Your task to perform on an android device: Go to network settings Image 0: 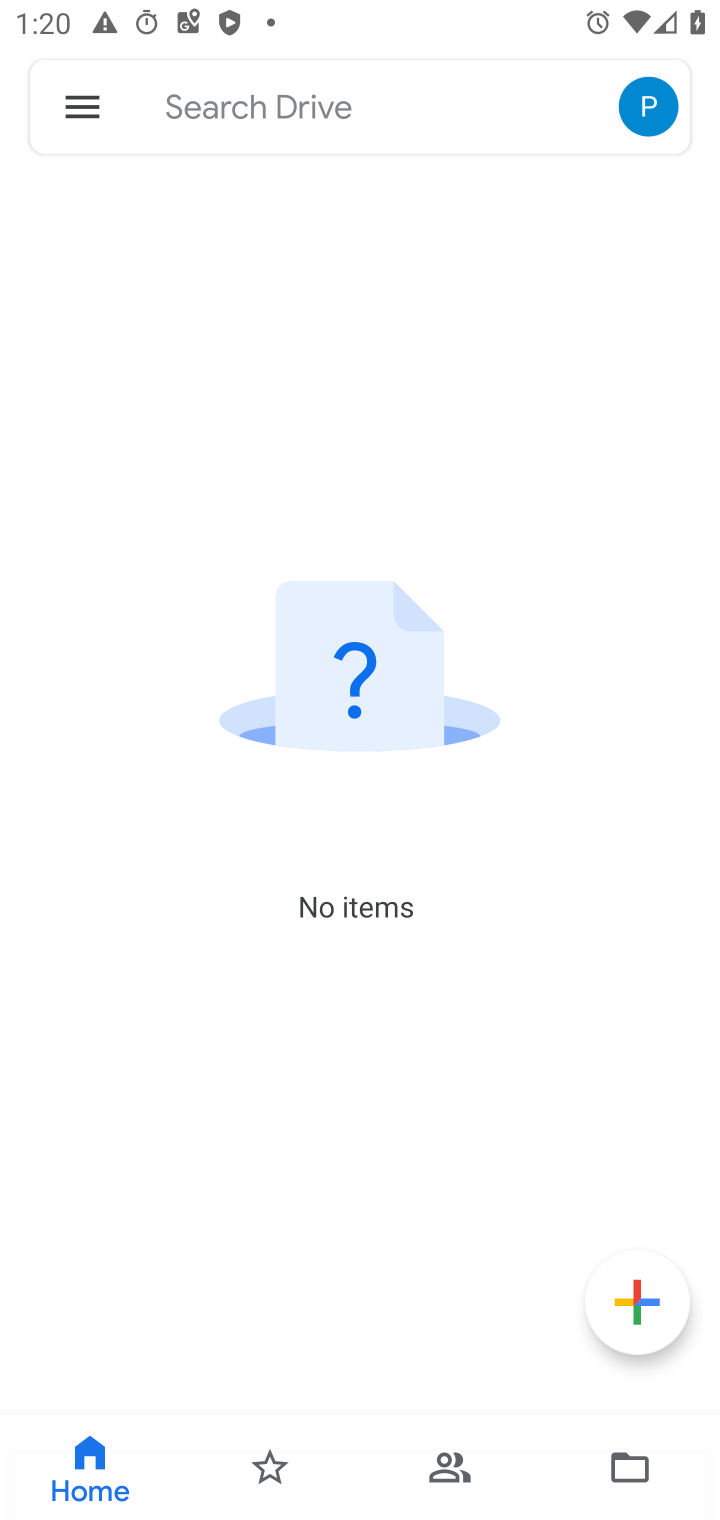
Step 0: press home button
Your task to perform on an android device: Go to network settings Image 1: 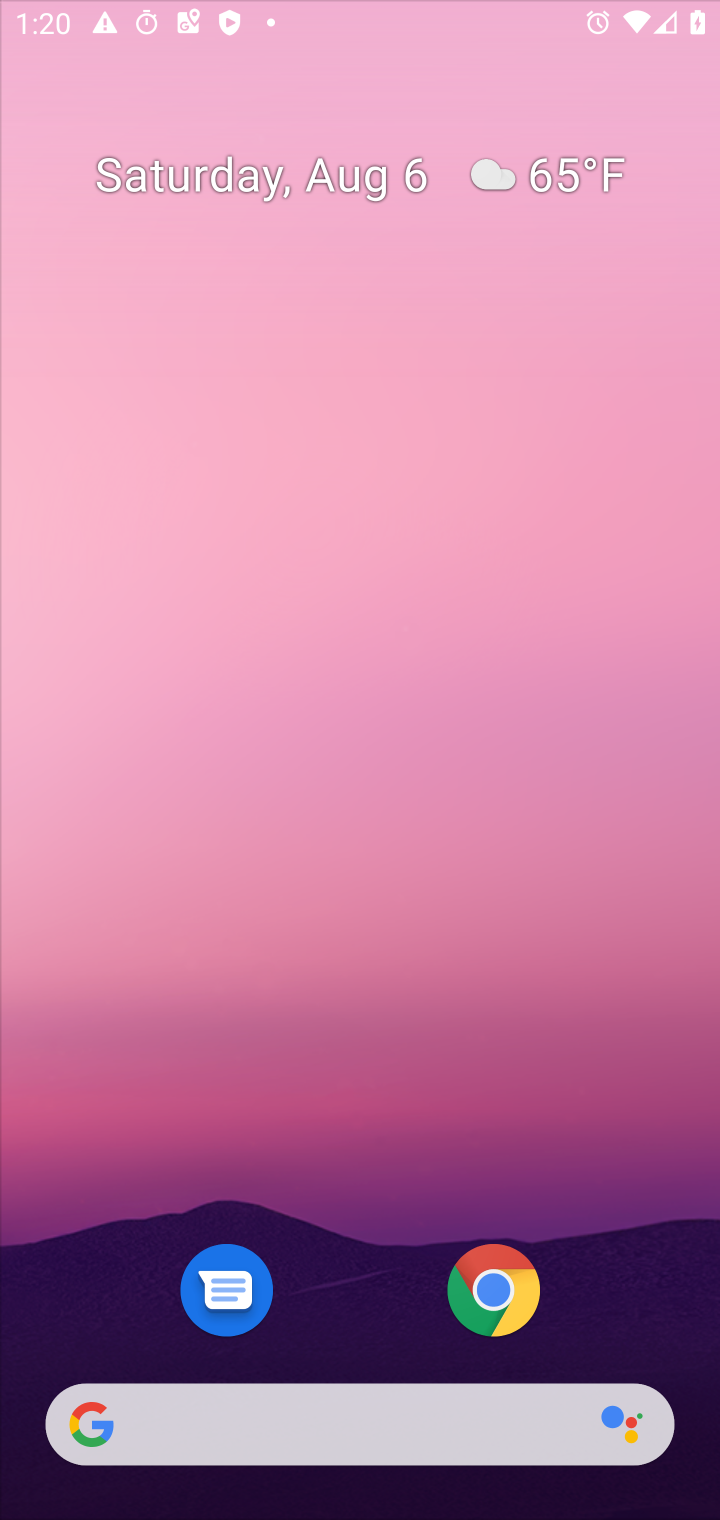
Step 1: press home button
Your task to perform on an android device: Go to network settings Image 2: 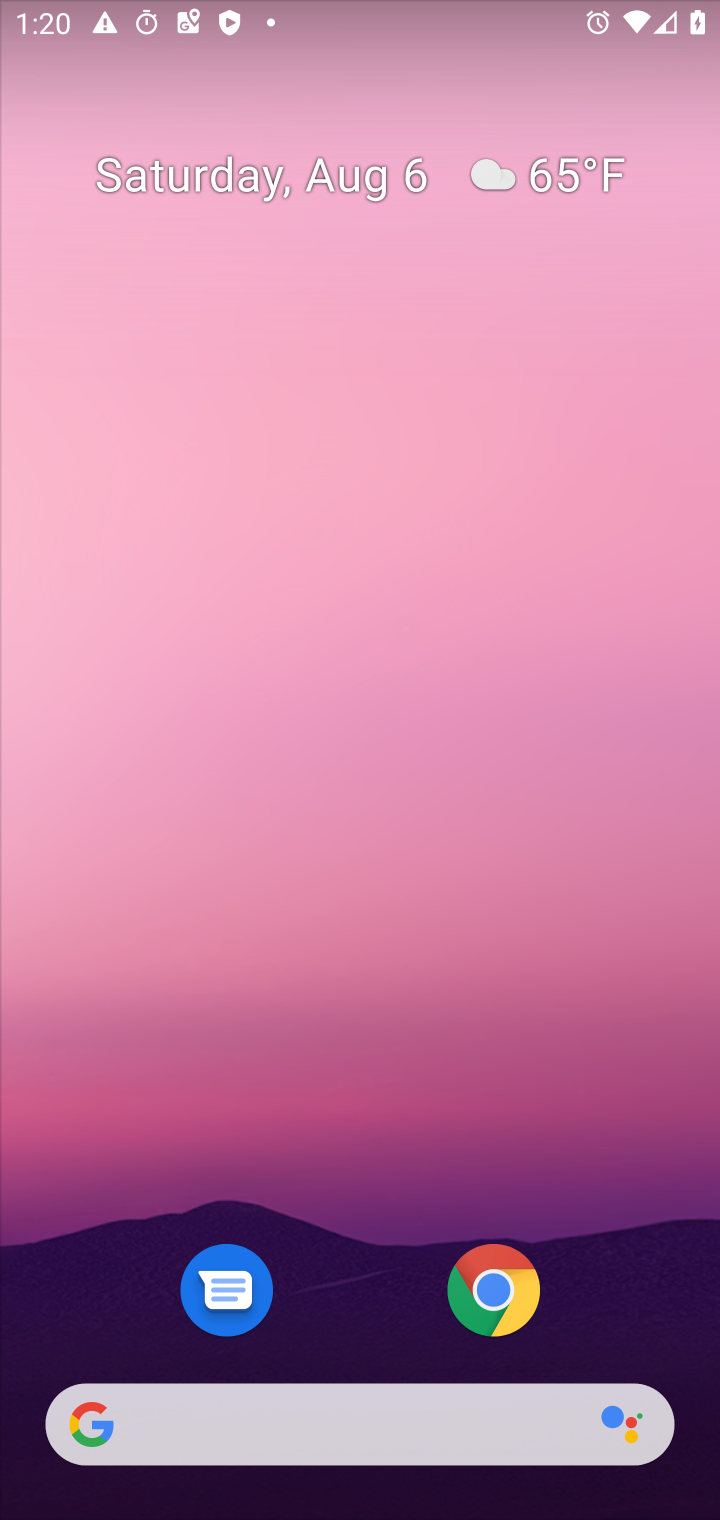
Step 2: drag from (431, 1179) to (532, 172)
Your task to perform on an android device: Go to network settings Image 3: 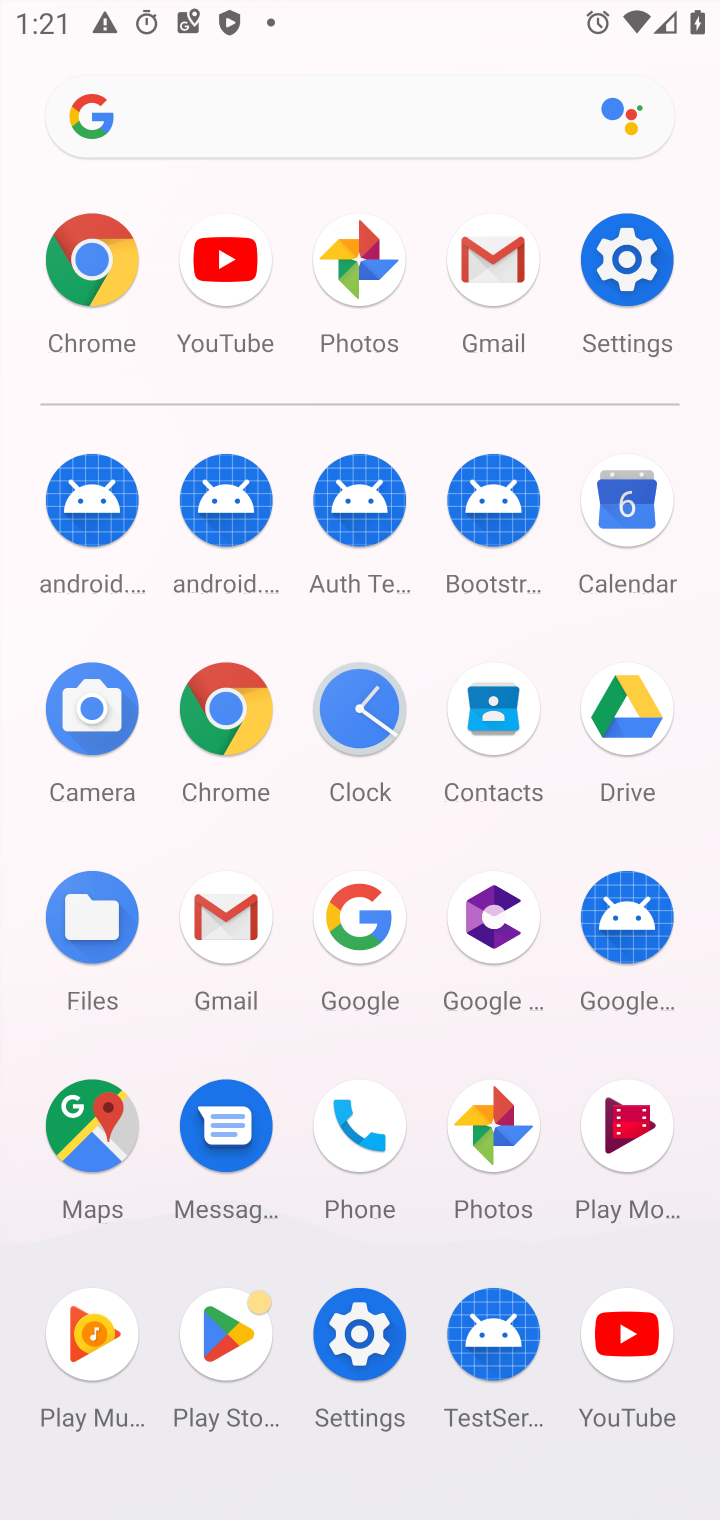
Step 3: click (630, 242)
Your task to perform on an android device: Go to network settings Image 4: 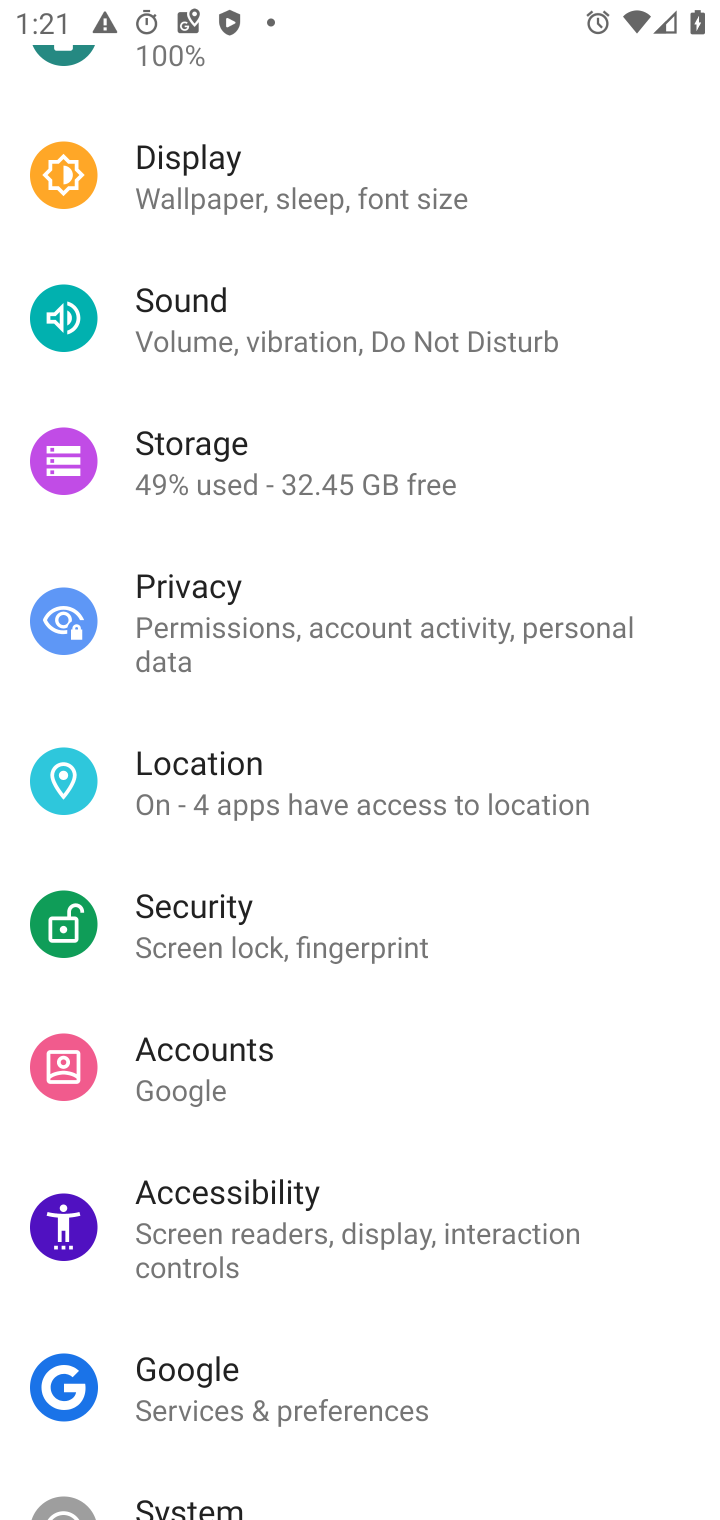
Step 4: drag from (335, 232) to (386, 1395)
Your task to perform on an android device: Go to network settings Image 5: 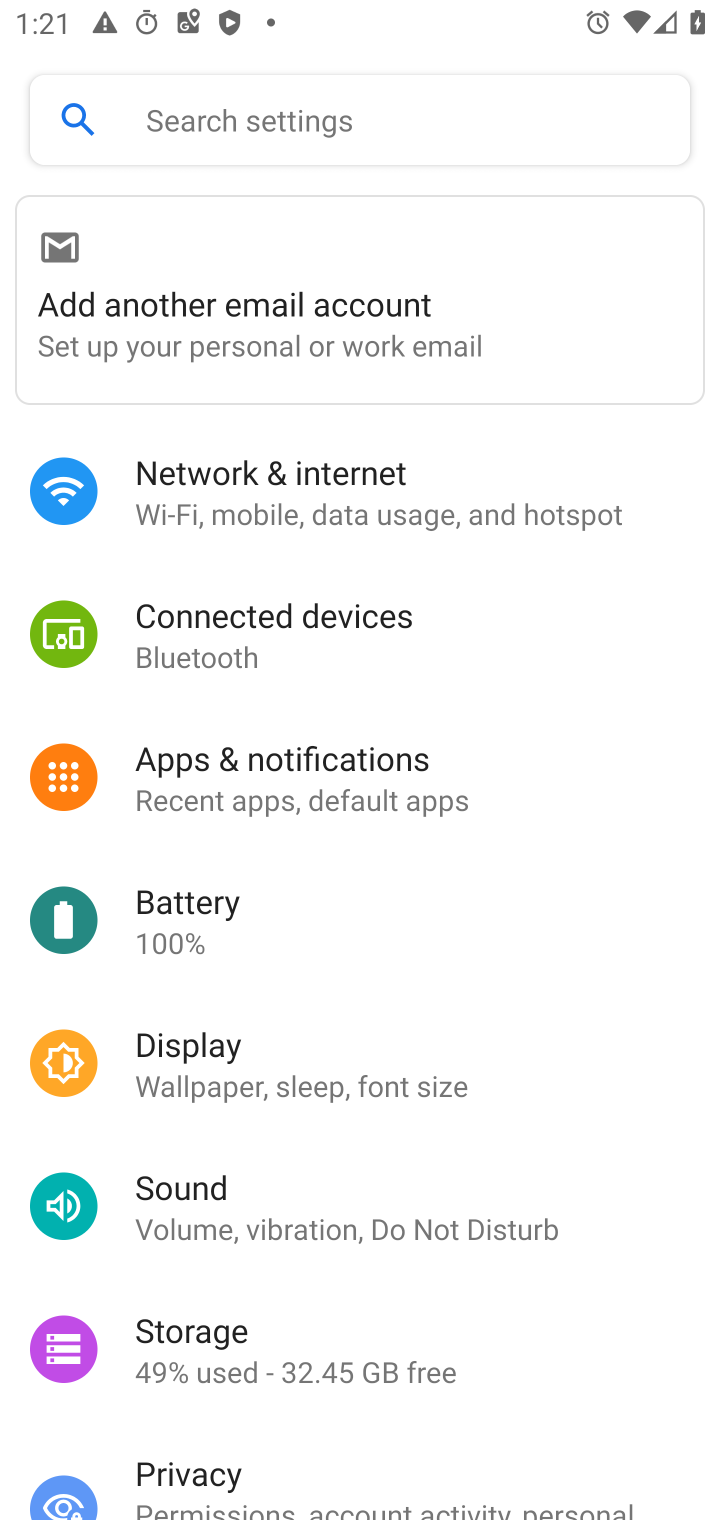
Step 5: click (261, 450)
Your task to perform on an android device: Go to network settings Image 6: 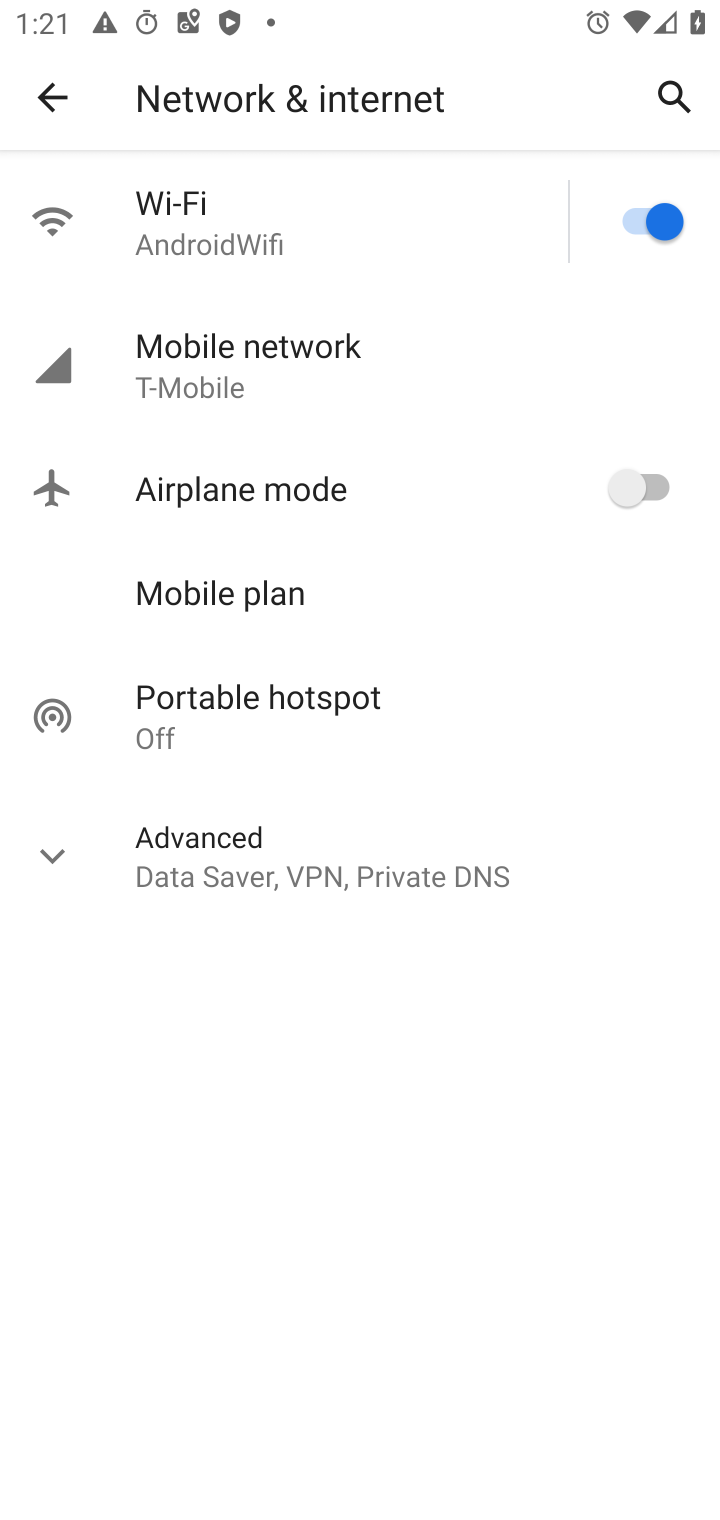
Step 6: click (68, 850)
Your task to perform on an android device: Go to network settings Image 7: 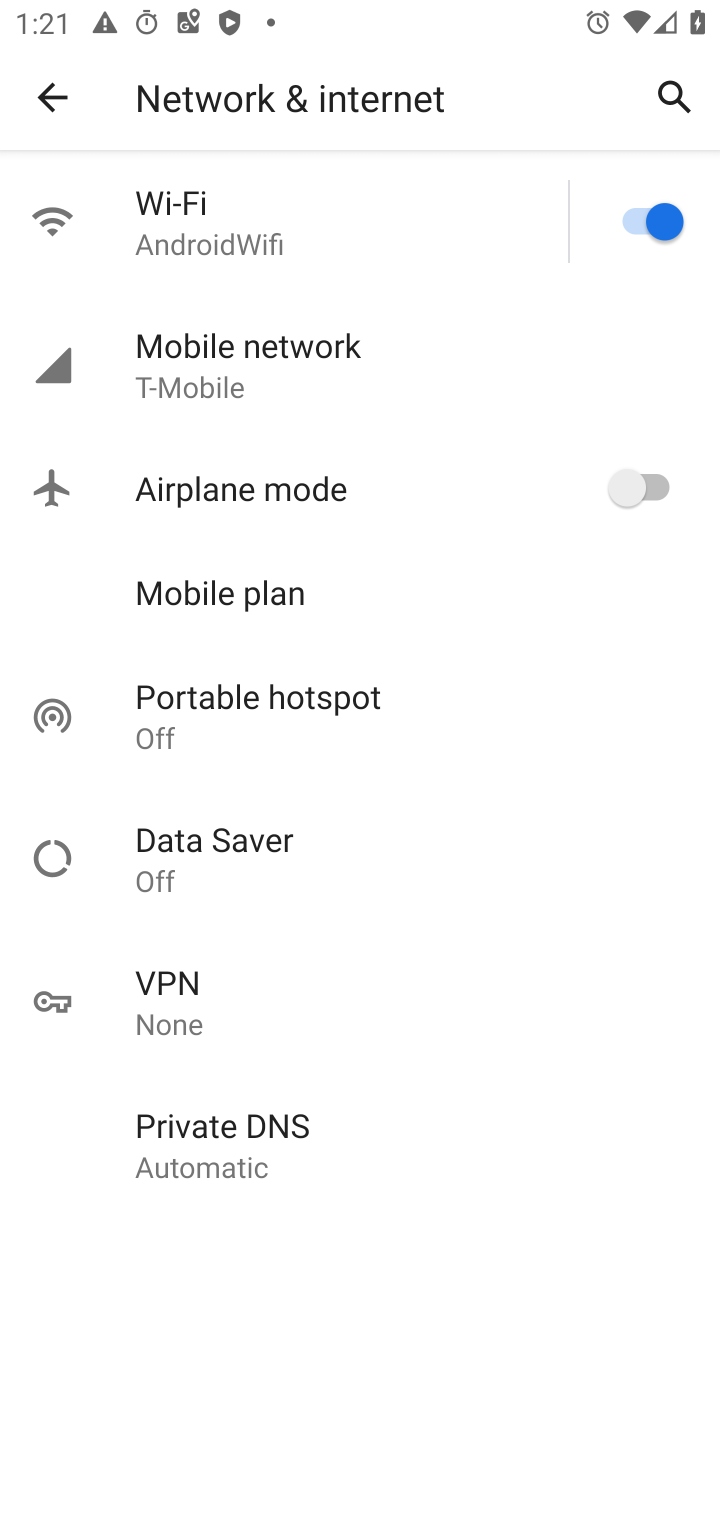
Step 7: task complete